Your task to perform on an android device: Search for pizza restaurants on Maps Image 0: 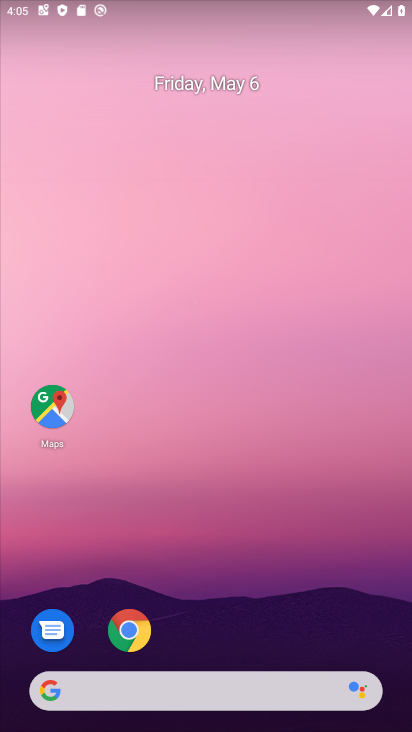
Step 0: click (56, 402)
Your task to perform on an android device: Search for pizza restaurants on Maps Image 1: 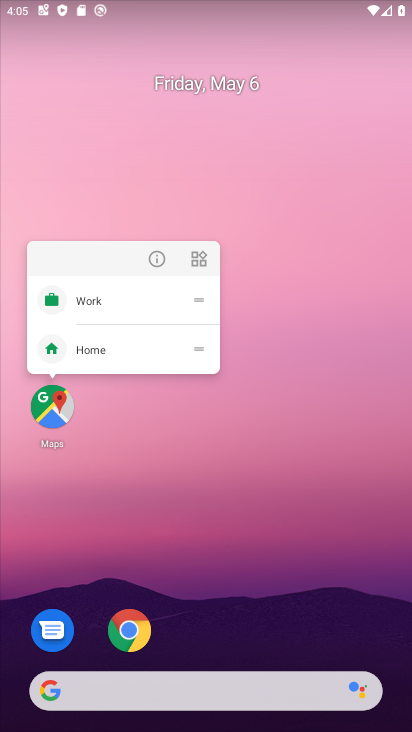
Step 1: click (52, 409)
Your task to perform on an android device: Search for pizza restaurants on Maps Image 2: 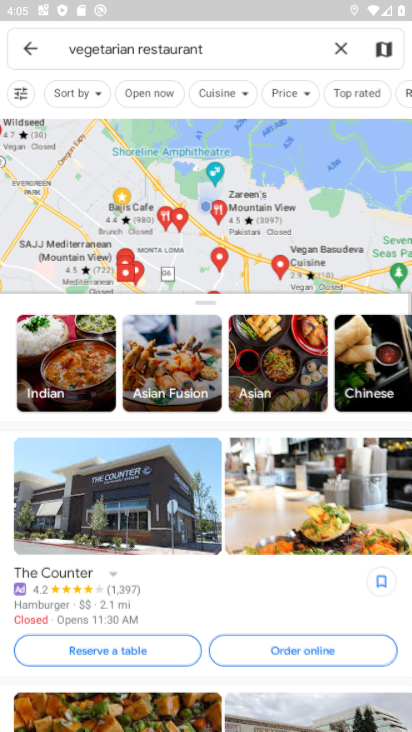
Step 2: click (346, 44)
Your task to perform on an android device: Search for pizza restaurants on Maps Image 3: 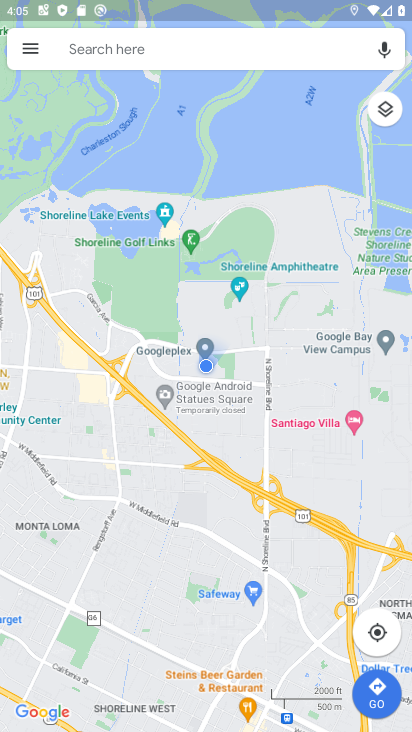
Step 3: click (161, 45)
Your task to perform on an android device: Search for pizza restaurants on Maps Image 4: 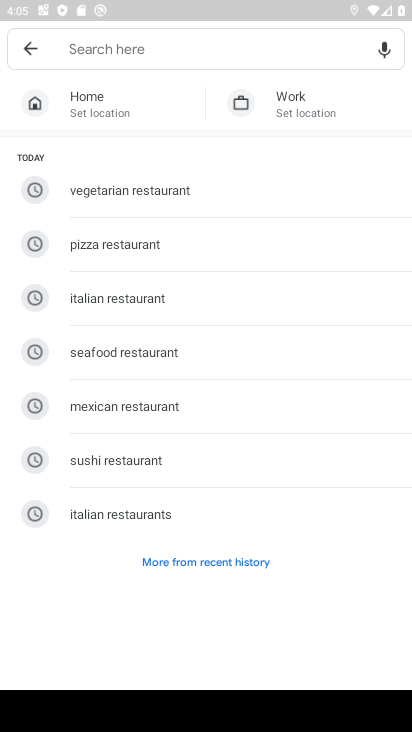
Step 4: click (98, 242)
Your task to perform on an android device: Search for pizza restaurants on Maps Image 5: 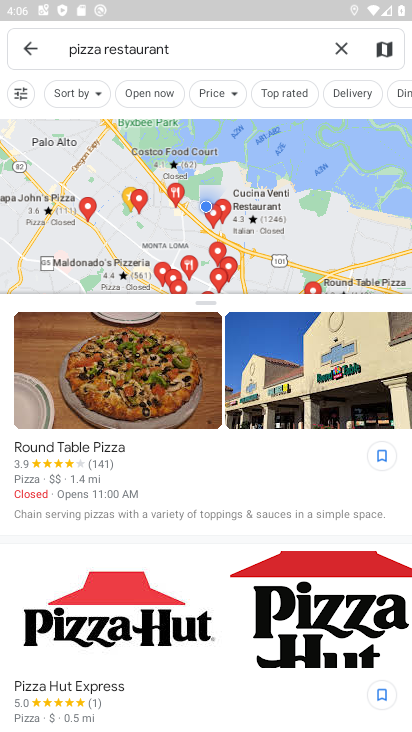
Step 5: task complete